Your task to perform on an android device: Open the calendar and show me this week's events? Image 0: 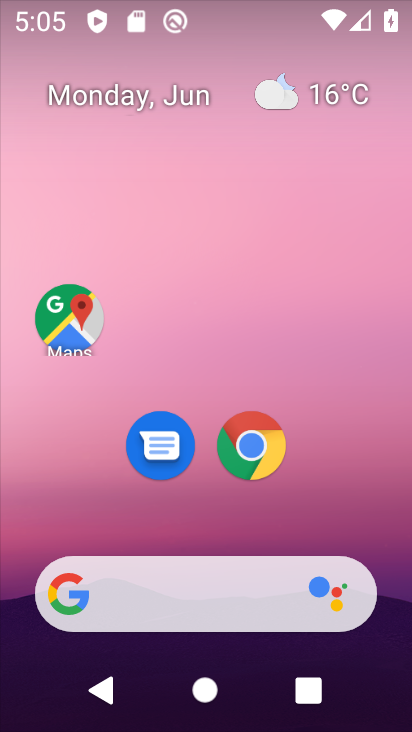
Step 0: drag from (327, 485) to (206, 13)
Your task to perform on an android device: Open the calendar and show me this week's events? Image 1: 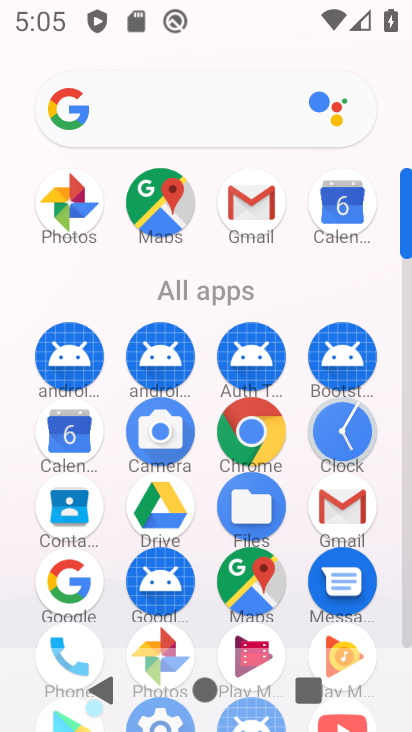
Step 1: click (347, 214)
Your task to perform on an android device: Open the calendar and show me this week's events? Image 2: 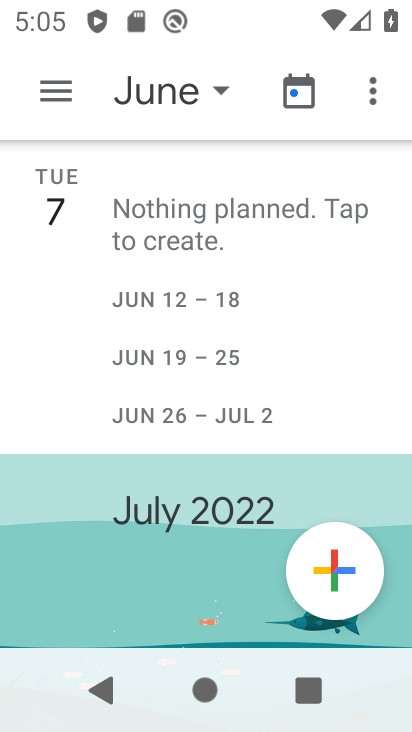
Step 2: click (223, 86)
Your task to perform on an android device: Open the calendar and show me this week's events? Image 3: 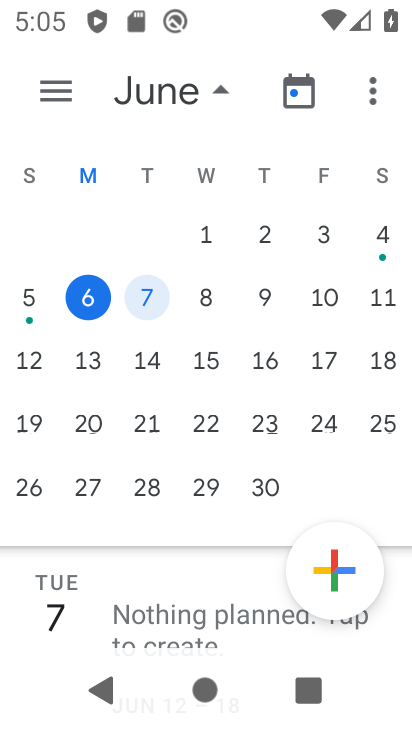
Step 3: click (60, 95)
Your task to perform on an android device: Open the calendar and show me this week's events? Image 4: 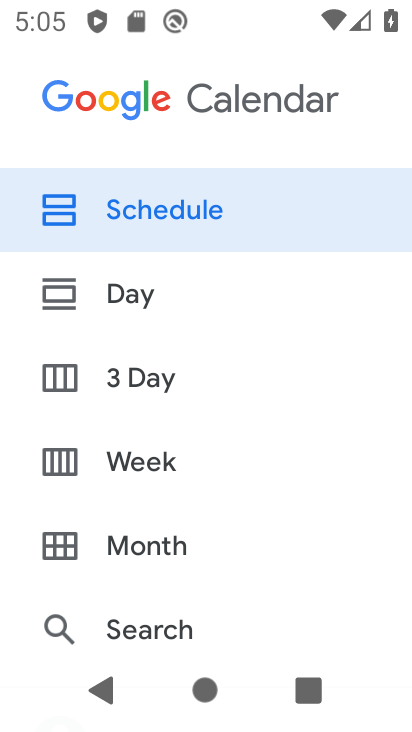
Step 4: click (107, 221)
Your task to perform on an android device: Open the calendar and show me this week's events? Image 5: 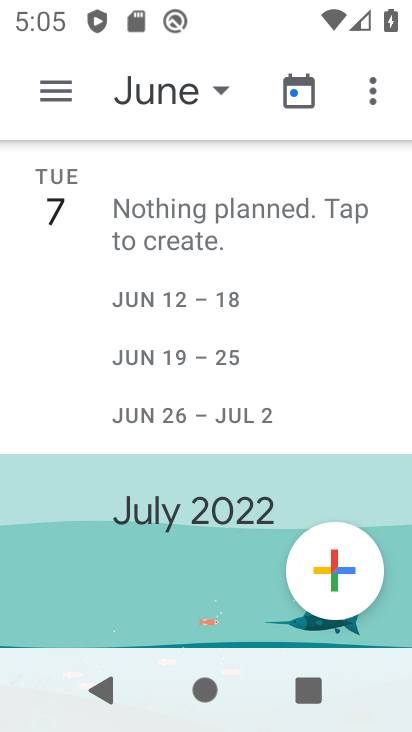
Step 5: drag from (236, 473) to (270, 261)
Your task to perform on an android device: Open the calendar and show me this week's events? Image 6: 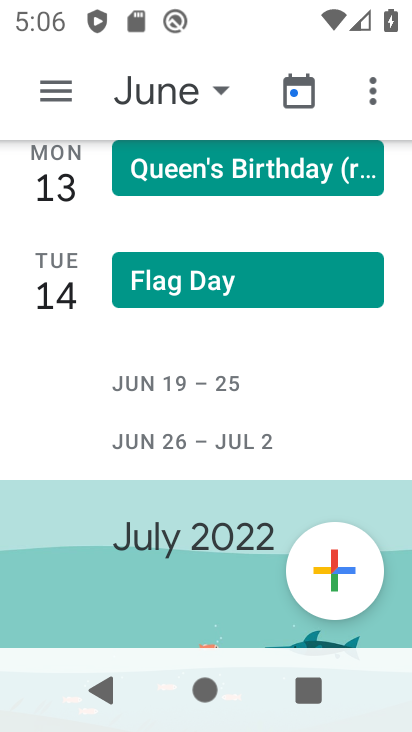
Step 6: drag from (273, 311) to (272, 504)
Your task to perform on an android device: Open the calendar and show me this week's events? Image 7: 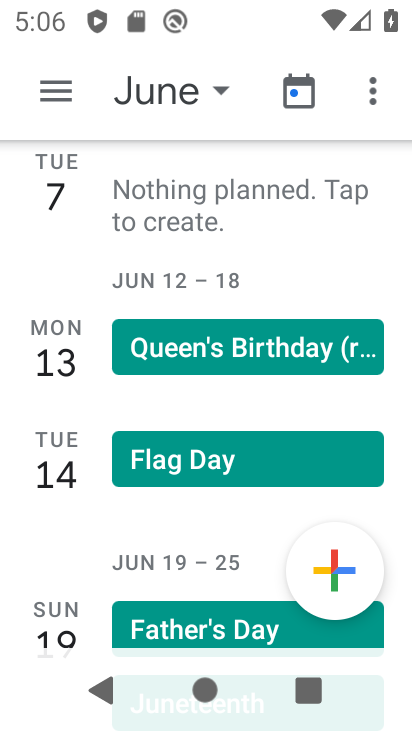
Step 7: click (234, 275)
Your task to perform on an android device: Open the calendar and show me this week's events? Image 8: 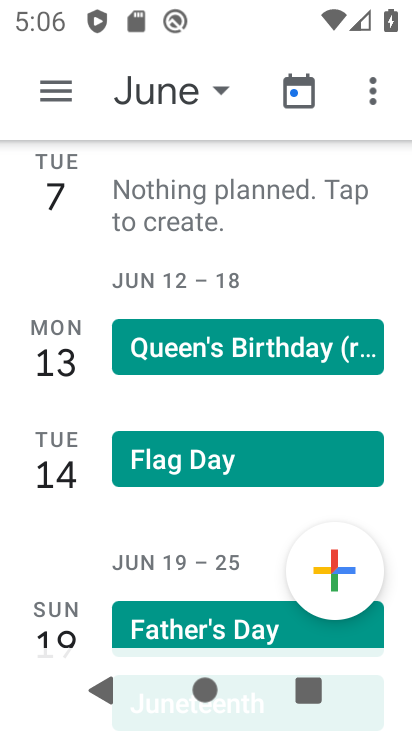
Step 8: task complete